Your task to perform on an android device: Go to network settings Image 0: 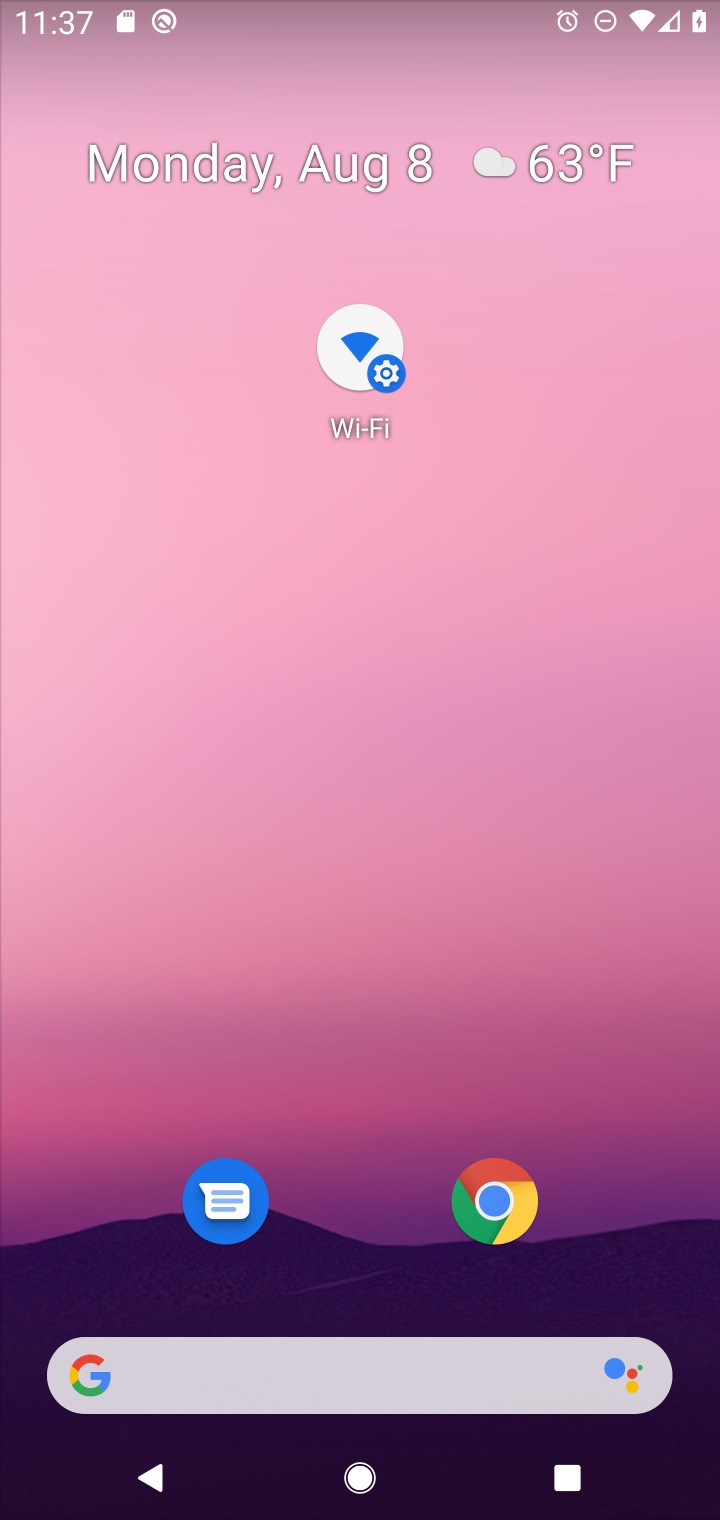
Step 0: press home button
Your task to perform on an android device: Go to network settings Image 1: 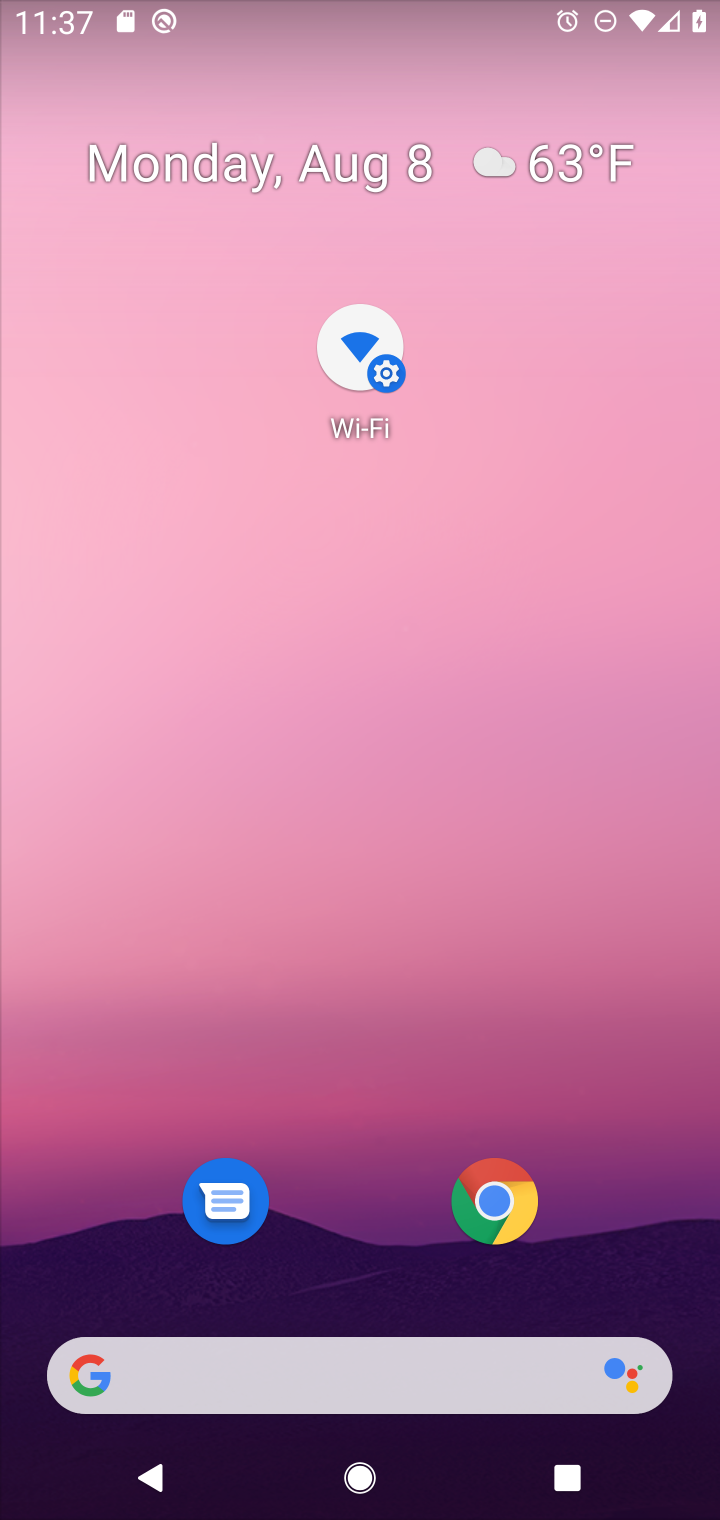
Step 1: drag from (629, 1123) to (647, 229)
Your task to perform on an android device: Go to network settings Image 2: 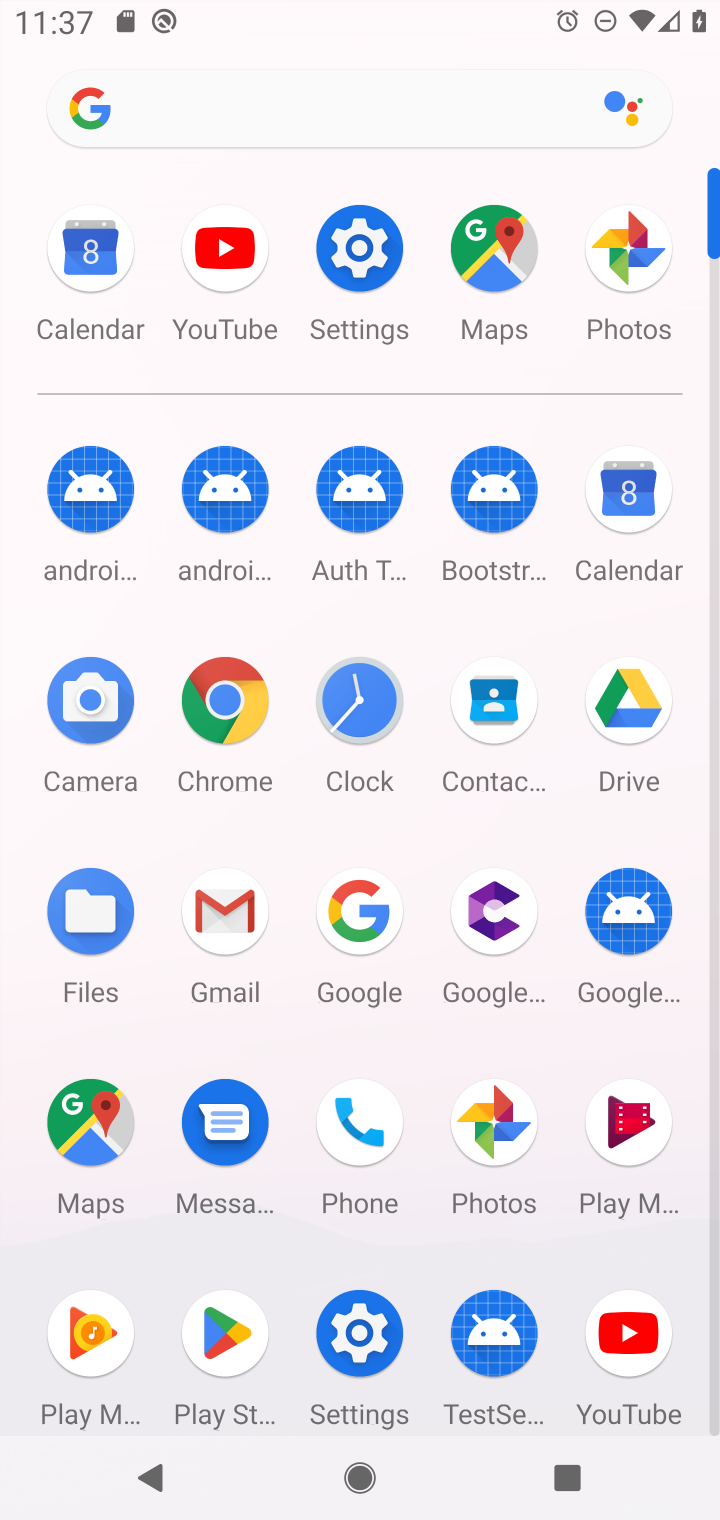
Step 2: click (358, 248)
Your task to perform on an android device: Go to network settings Image 3: 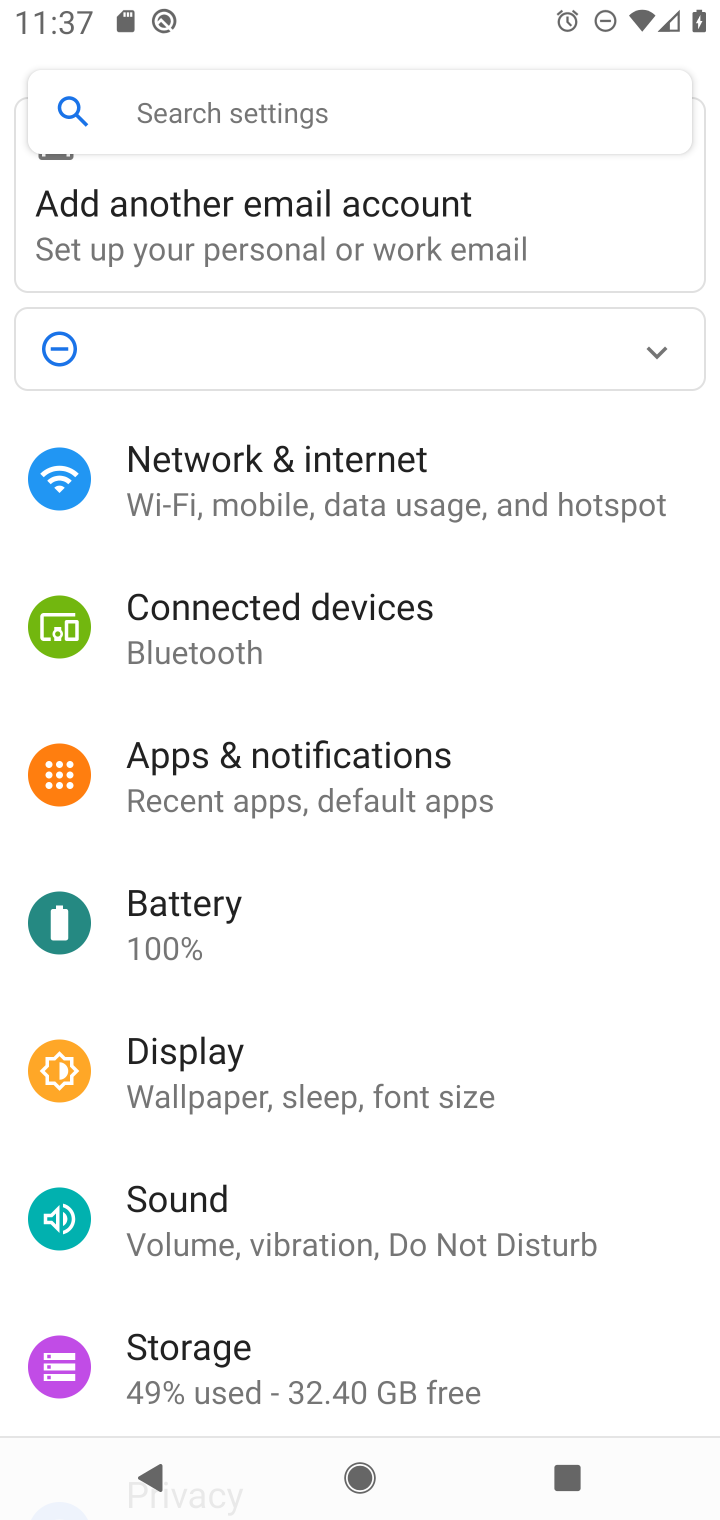
Step 3: drag from (631, 948) to (639, 483)
Your task to perform on an android device: Go to network settings Image 4: 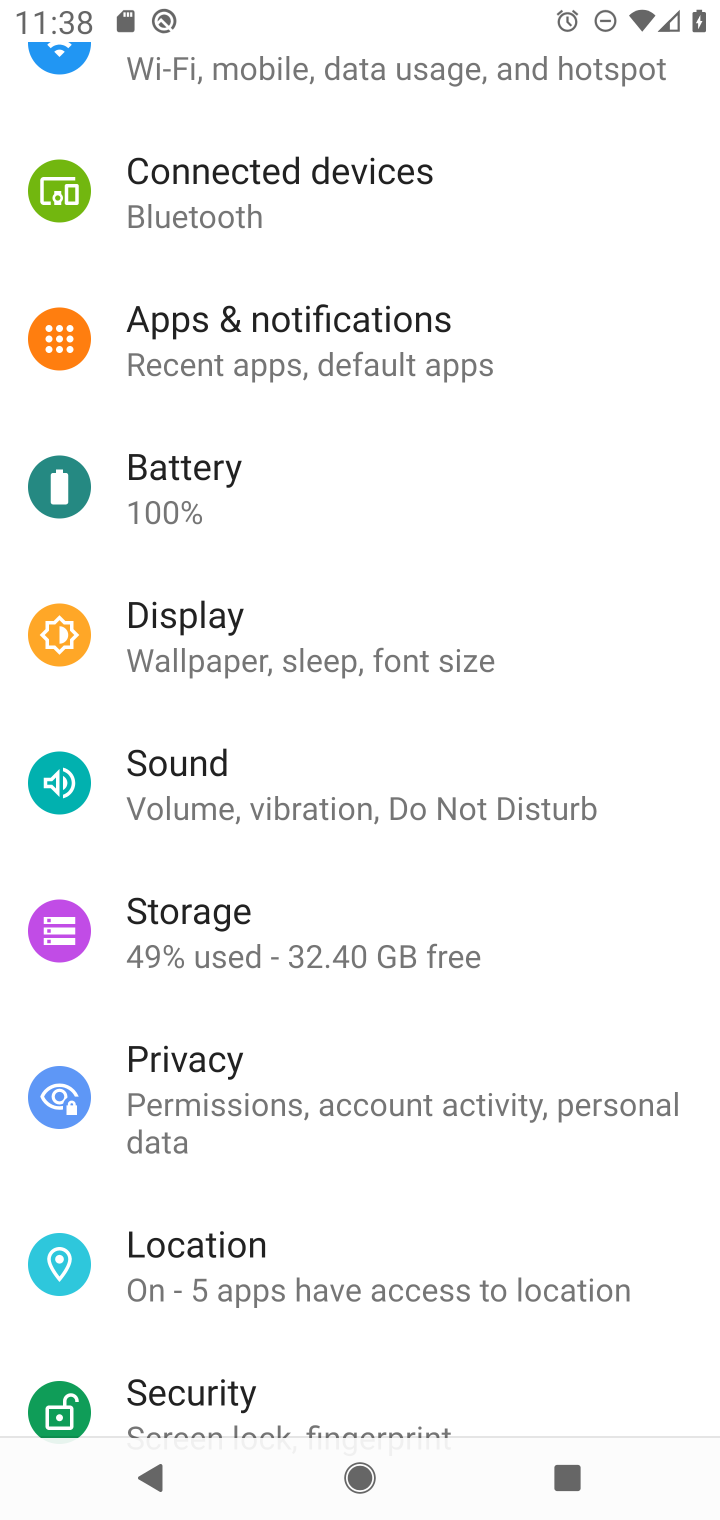
Step 4: drag from (639, 974) to (657, 407)
Your task to perform on an android device: Go to network settings Image 5: 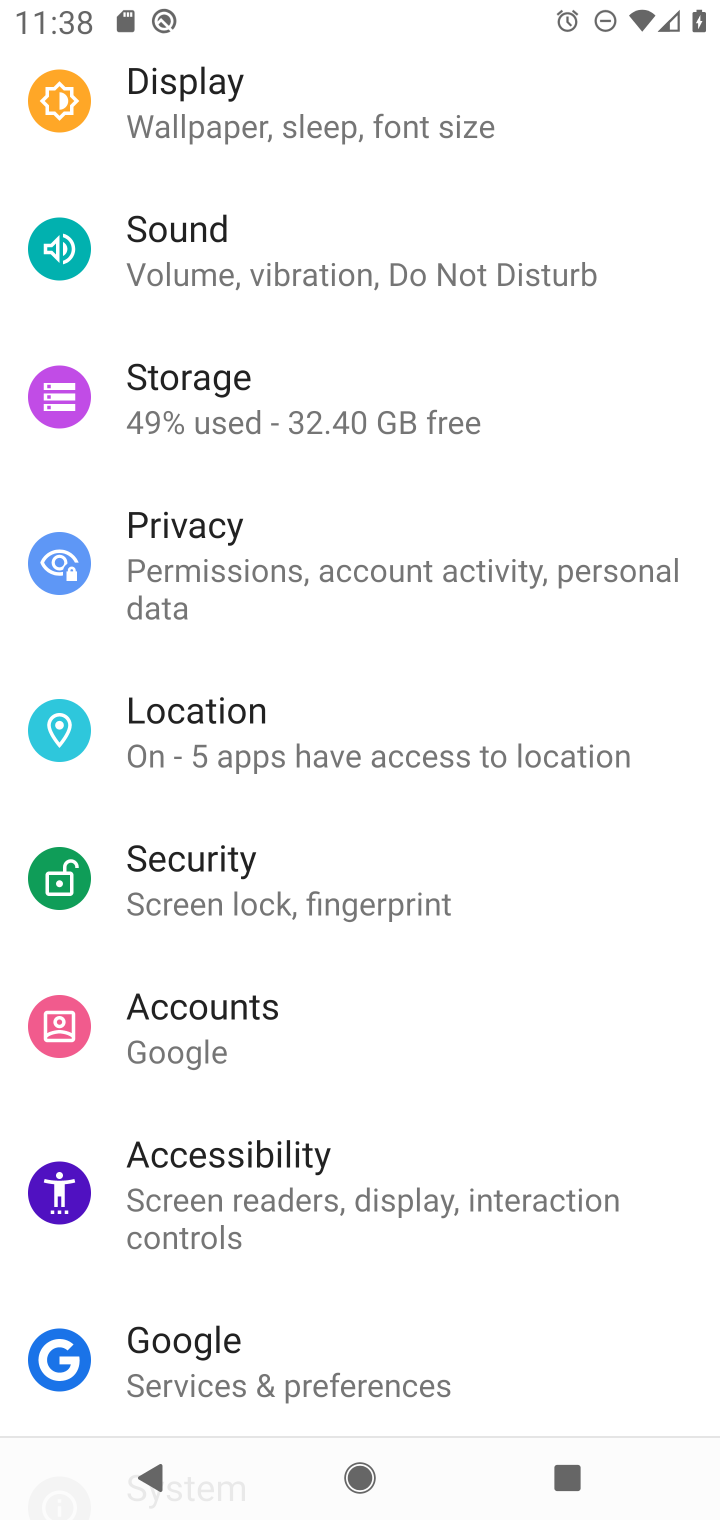
Step 5: drag from (585, 1017) to (617, 456)
Your task to perform on an android device: Go to network settings Image 6: 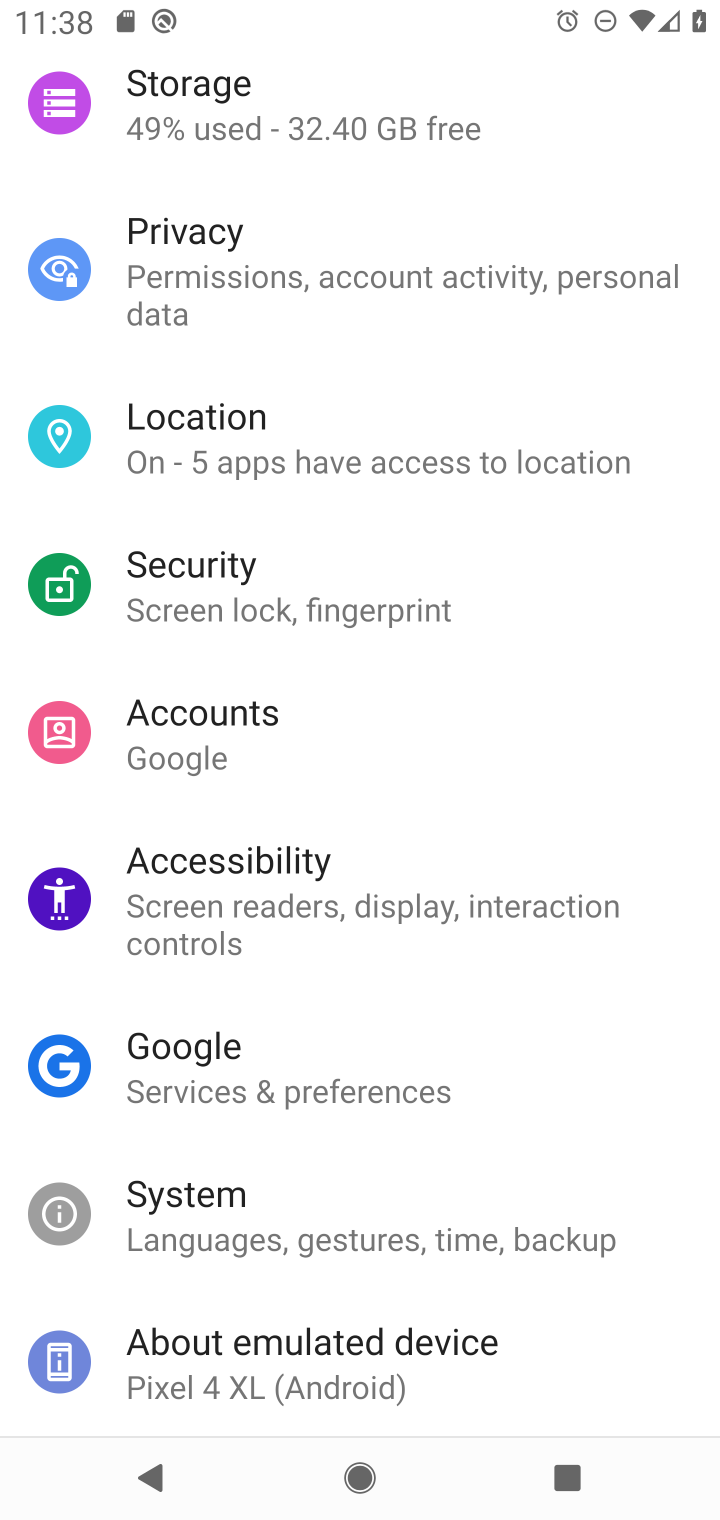
Step 6: drag from (591, 1094) to (588, 592)
Your task to perform on an android device: Go to network settings Image 7: 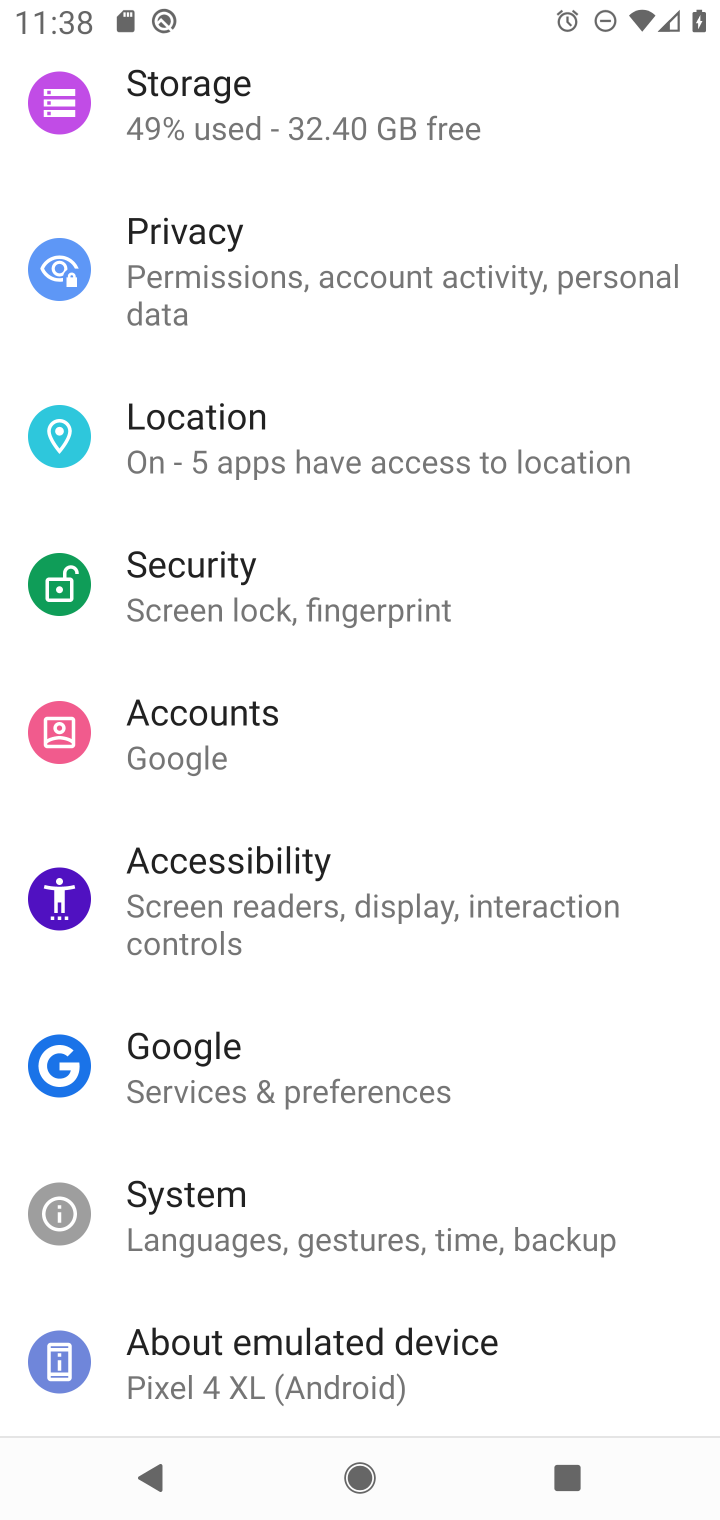
Step 7: drag from (666, 371) to (653, 893)
Your task to perform on an android device: Go to network settings Image 8: 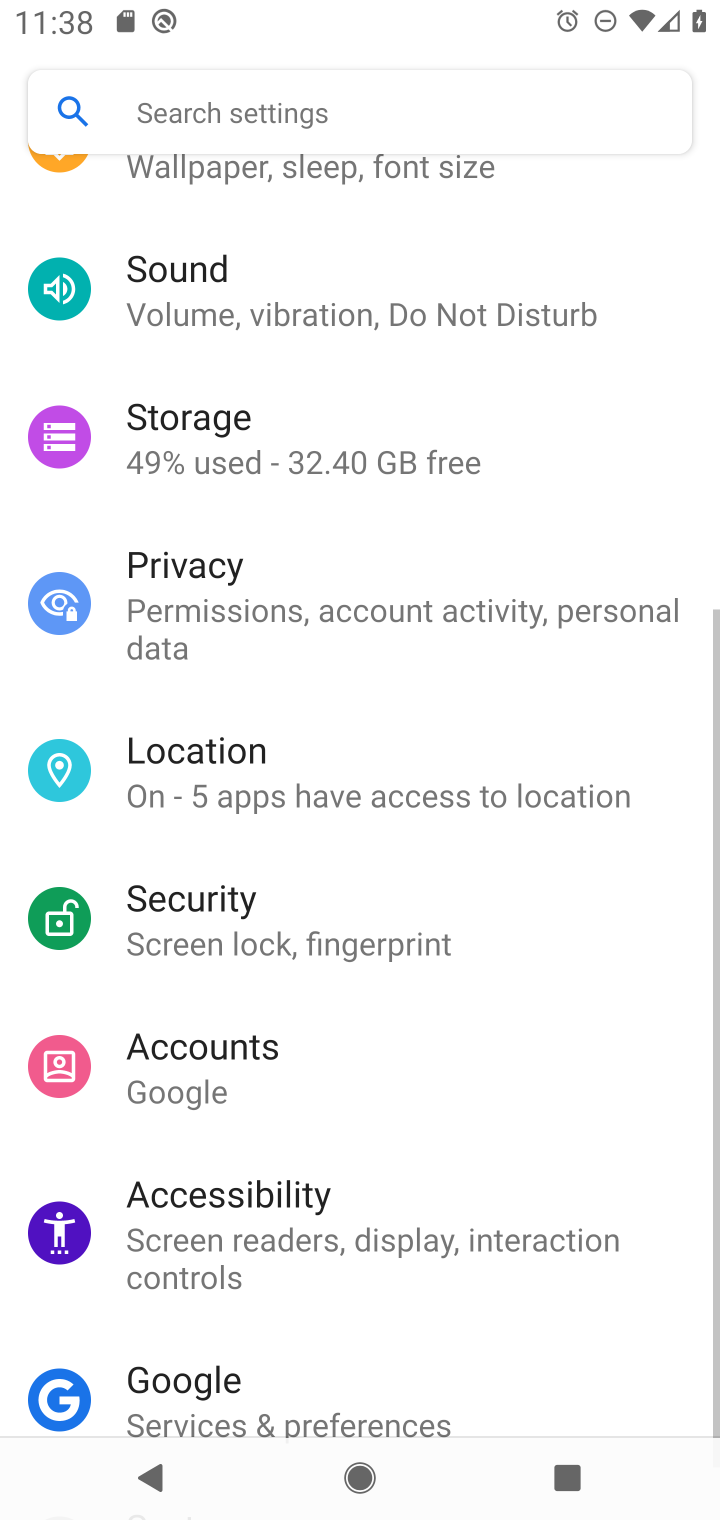
Step 8: drag from (653, 387) to (665, 833)
Your task to perform on an android device: Go to network settings Image 9: 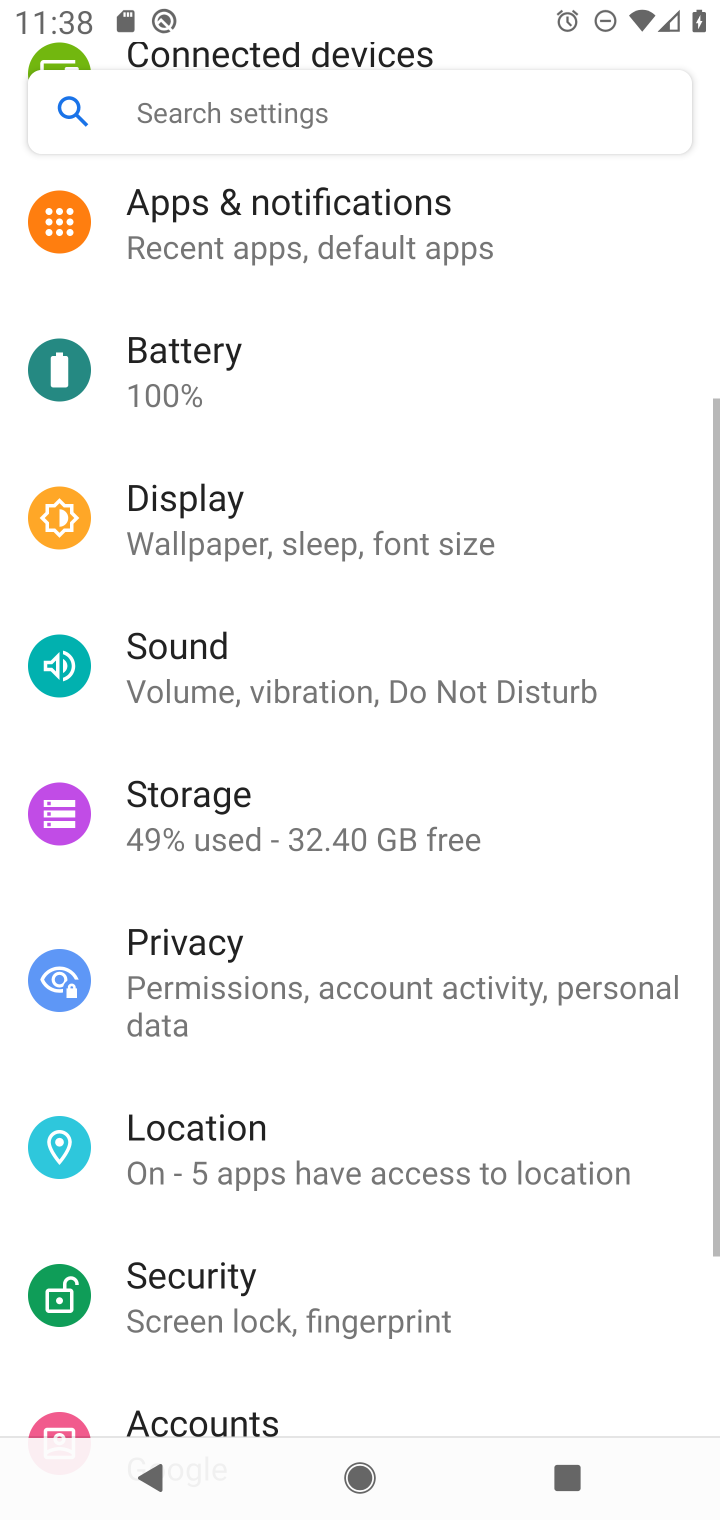
Step 9: drag from (644, 209) to (660, 841)
Your task to perform on an android device: Go to network settings Image 10: 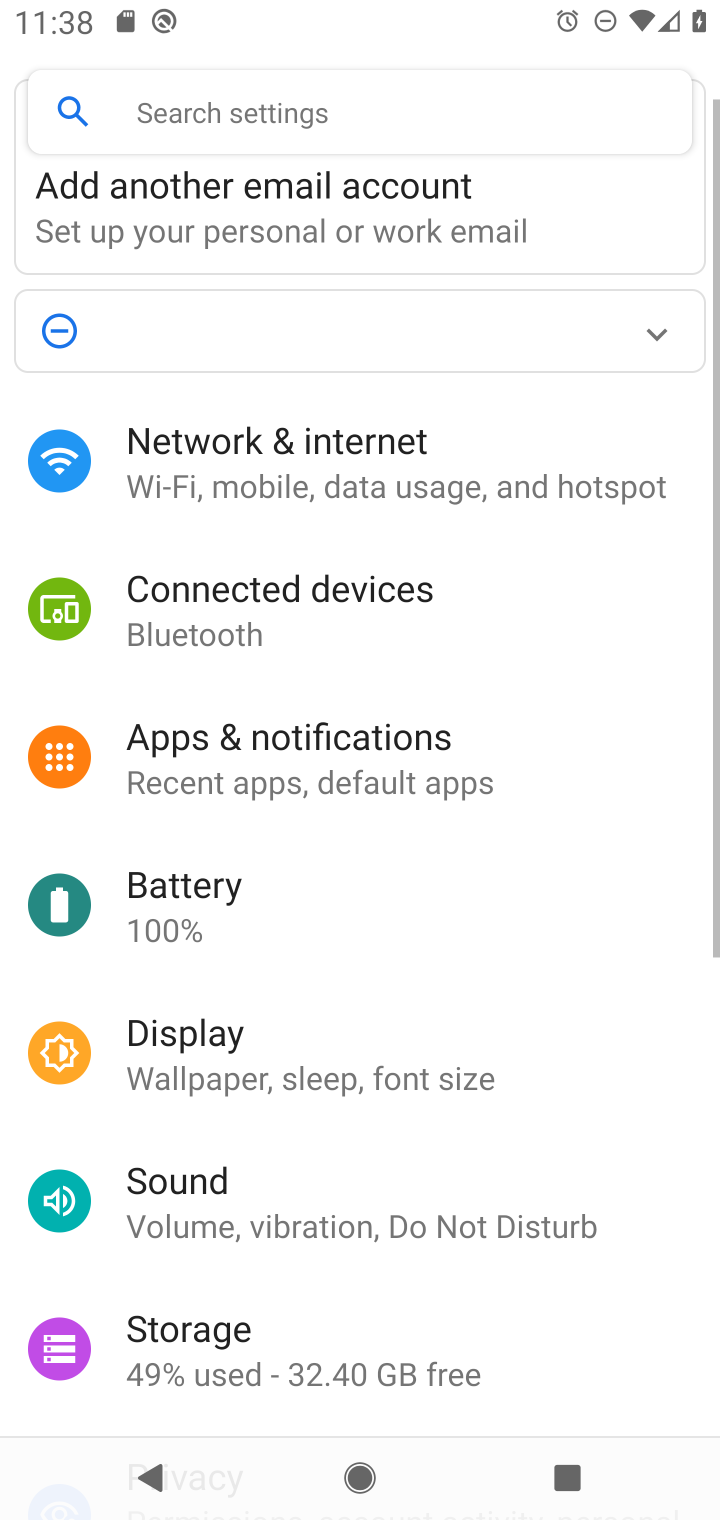
Step 10: click (478, 469)
Your task to perform on an android device: Go to network settings Image 11: 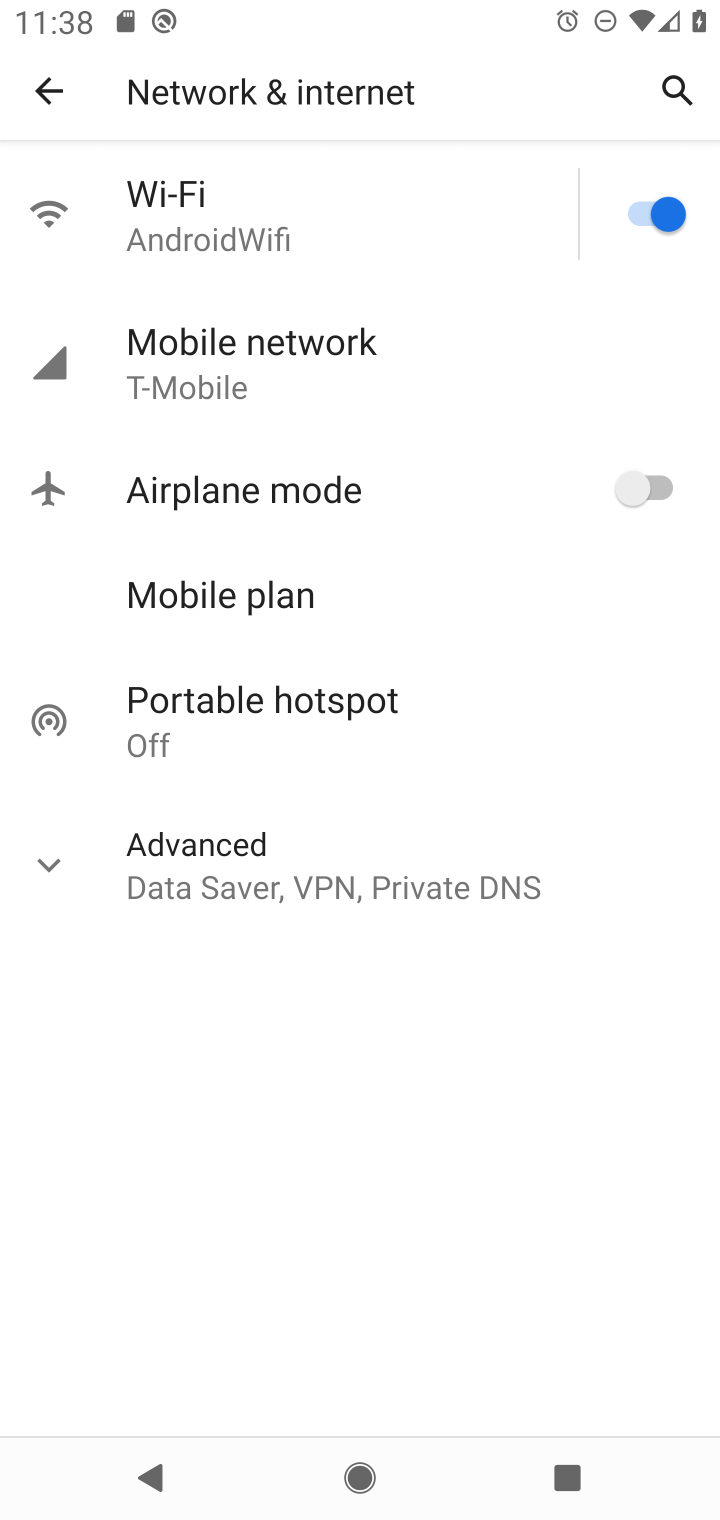
Step 11: task complete